Your task to perform on an android device: toggle javascript in the chrome app Image 0: 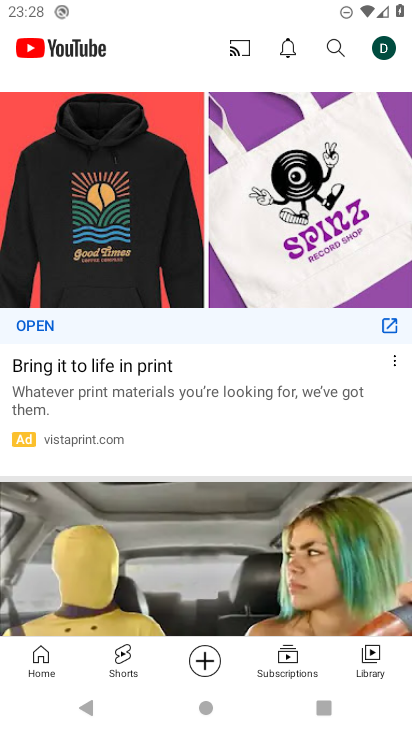
Step 0: press home button
Your task to perform on an android device: toggle javascript in the chrome app Image 1: 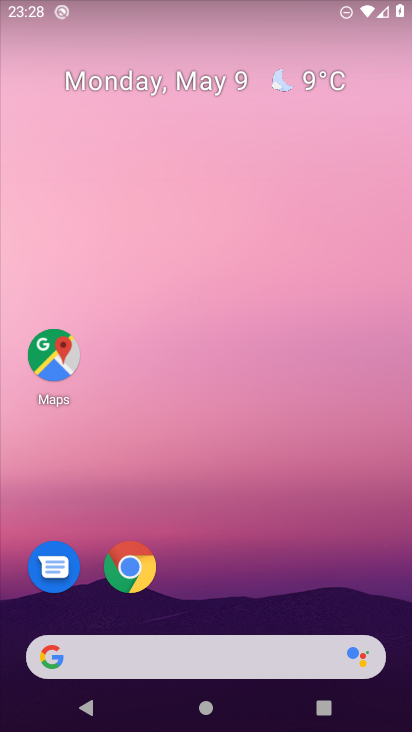
Step 1: click (122, 570)
Your task to perform on an android device: toggle javascript in the chrome app Image 2: 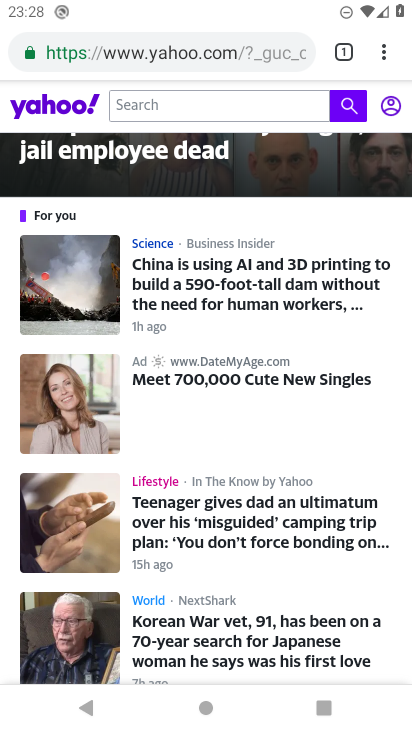
Step 2: press home button
Your task to perform on an android device: toggle javascript in the chrome app Image 3: 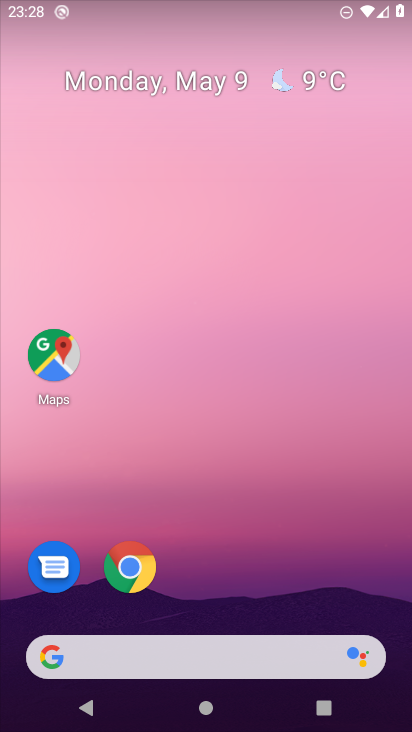
Step 3: click (128, 561)
Your task to perform on an android device: toggle javascript in the chrome app Image 4: 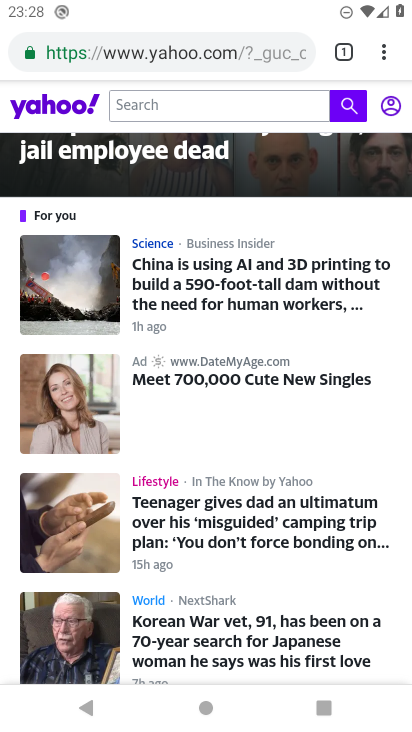
Step 4: click (381, 51)
Your task to perform on an android device: toggle javascript in the chrome app Image 5: 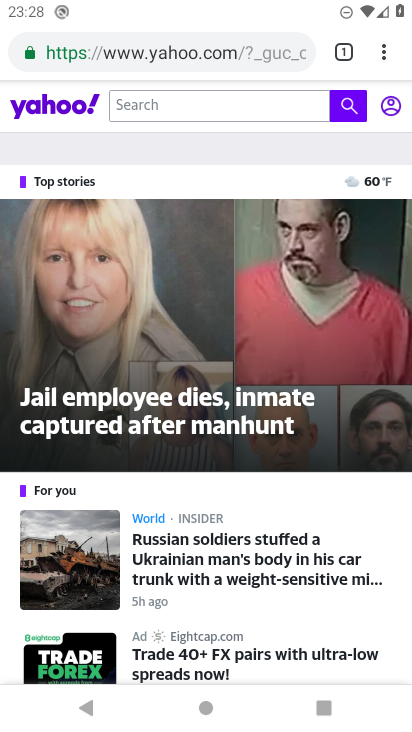
Step 5: click (383, 54)
Your task to perform on an android device: toggle javascript in the chrome app Image 6: 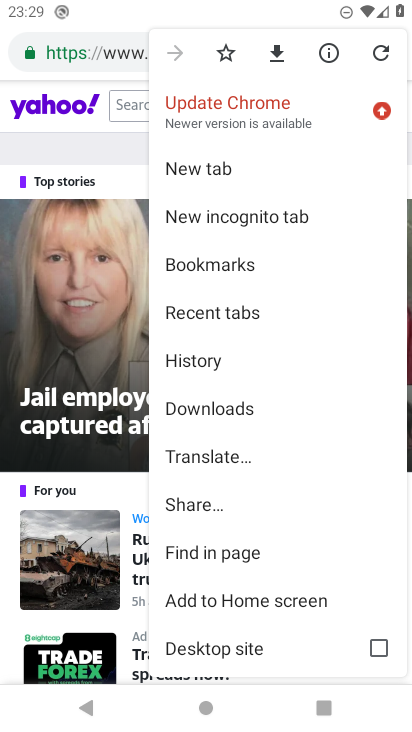
Step 6: drag from (272, 619) to (286, 147)
Your task to perform on an android device: toggle javascript in the chrome app Image 7: 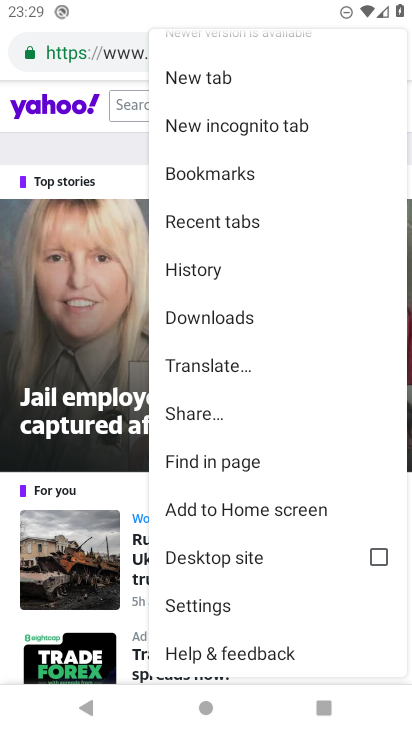
Step 7: click (235, 602)
Your task to perform on an android device: toggle javascript in the chrome app Image 8: 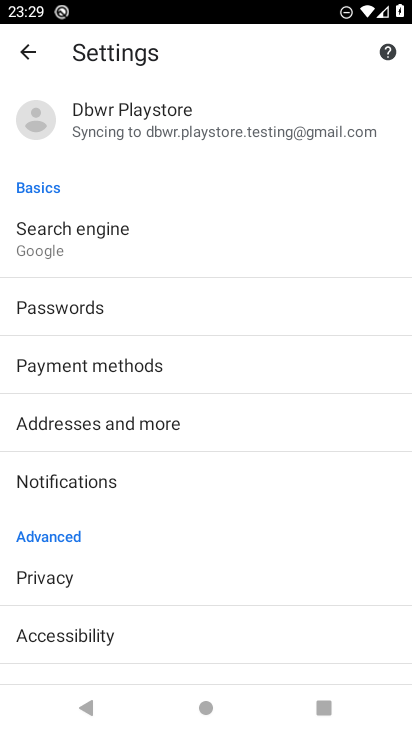
Step 8: drag from (187, 630) to (193, 553)
Your task to perform on an android device: toggle javascript in the chrome app Image 9: 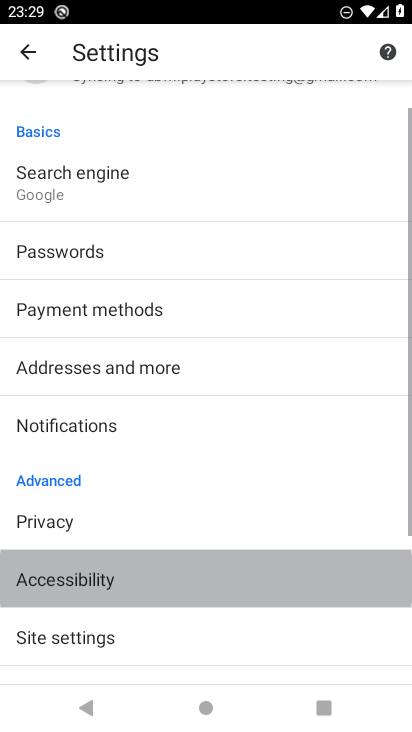
Step 9: drag from (206, 311) to (208, 225)
Your task to perform on an android device: toggle javascript in the chrome app Image 10: 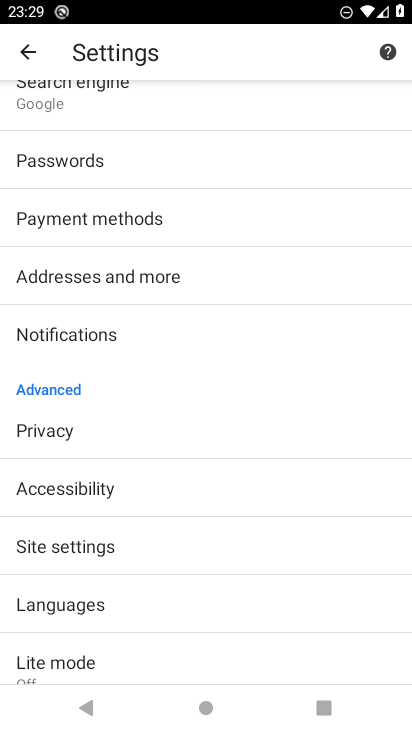
Step 10: click (146, 547)
Your task to perform on an android device: toggle javascript in the chrome app Image 11: 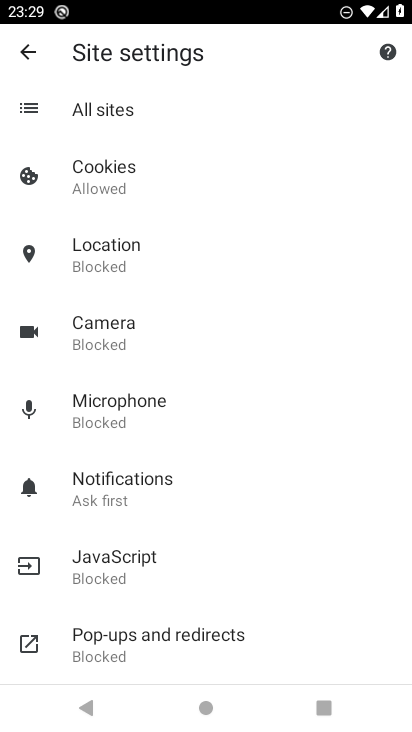
Step 11: click (163, 566)
Your task to perform on an android device: toggle javascript in the chrome app Image 12: 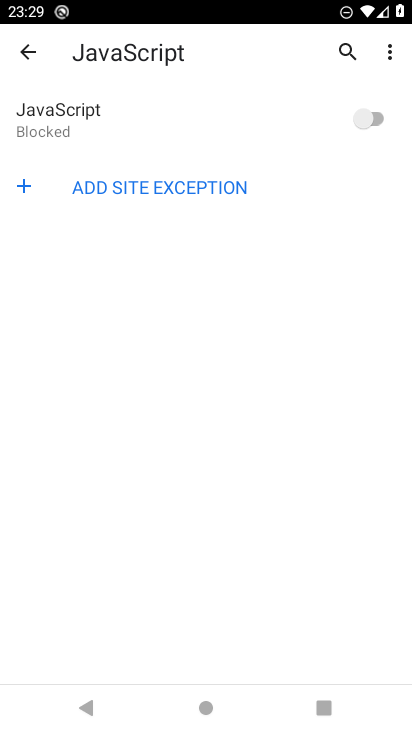
Step 12: click (369, 107)
Your task to perform on an android device: toggle javascript in the chrome app Image 13: 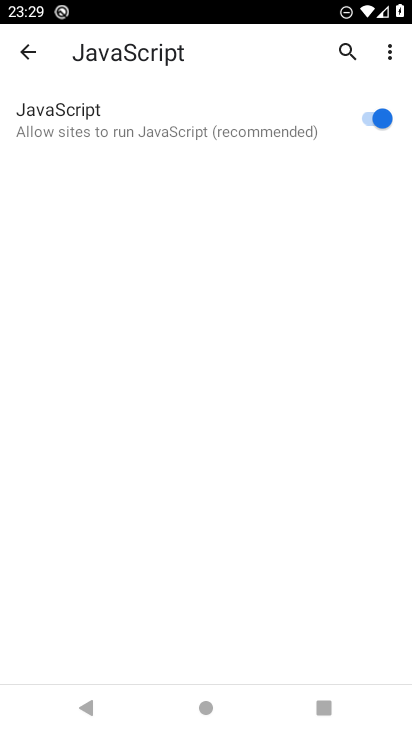
Step 13: task complete